Your task to perform on an android device: Go to Android settings Image 0: 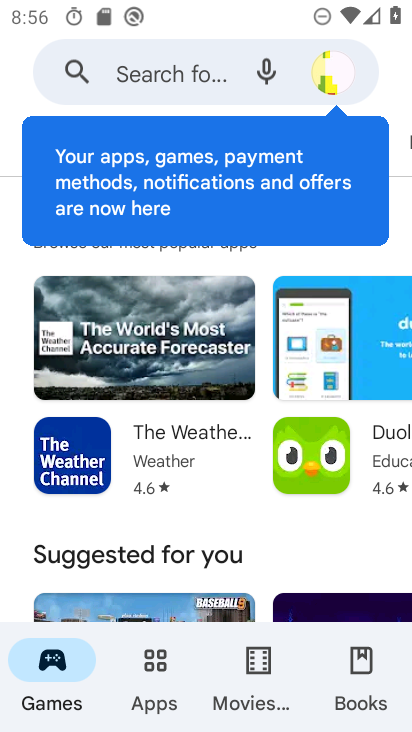
Step 0: press home button
Your task to perform on an android device: Go to Android settings Image 1: 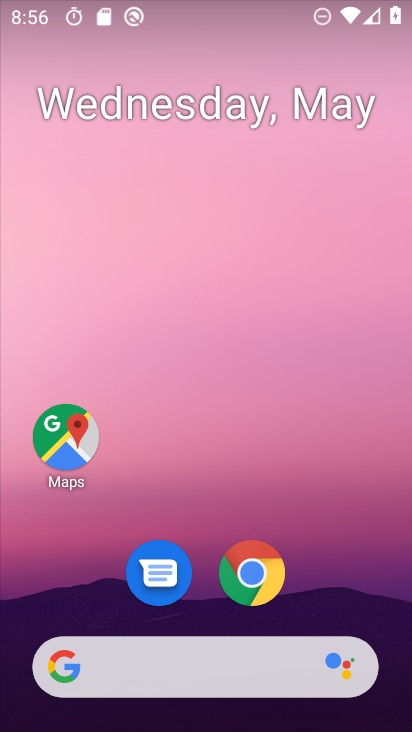
Step 1: drag from (385, 679) to (355, 289)
Your task to perform on an android device: Go to Android settings Image 2: 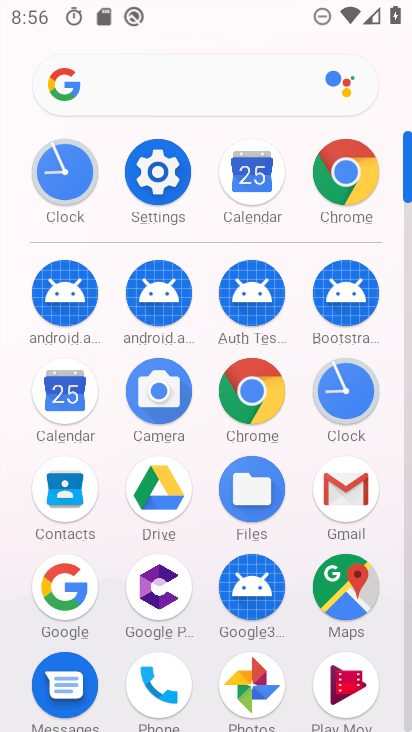
Step 2: click (171, 162)
Your task to perform on an android device: Go to Android settings Image 3: 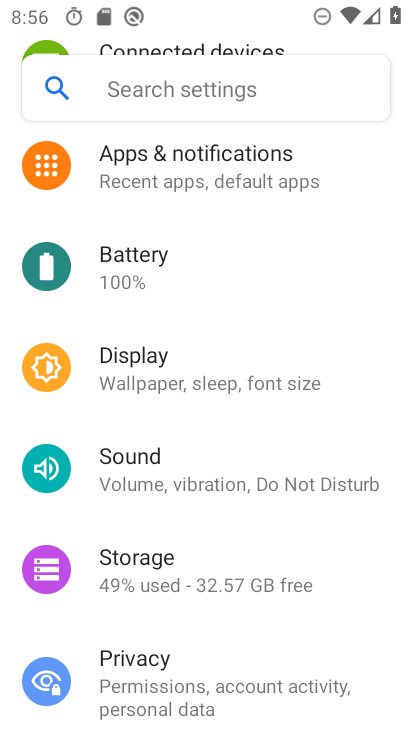
Step 3: task complete